Your task to perform on an android device: toggle show notifications on the lock screen Image 0: 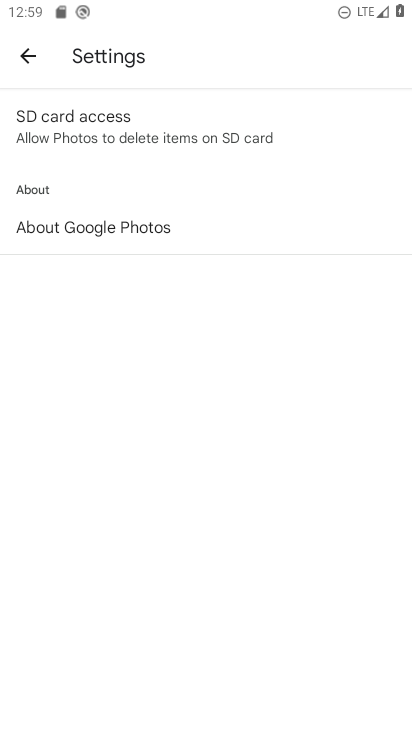
Step 0: press home button
Your task to perform on an android device: toggle show notifications on the lock screen Image 1: 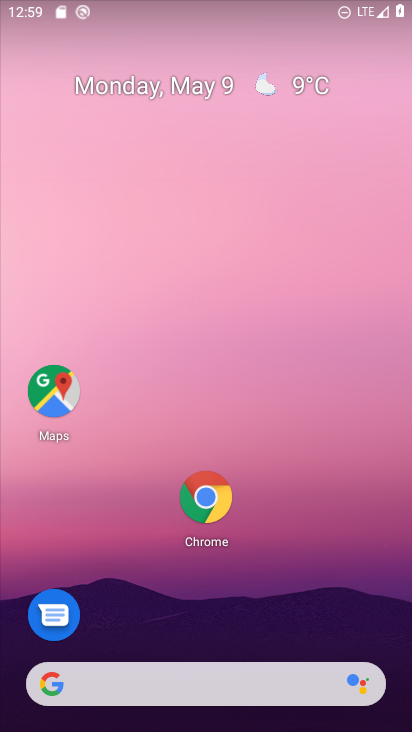
Step 1: drag from (329, 615) to (230, 87)
Your task to perform on an android device: toggle show notifications on the lock screen Image 2: 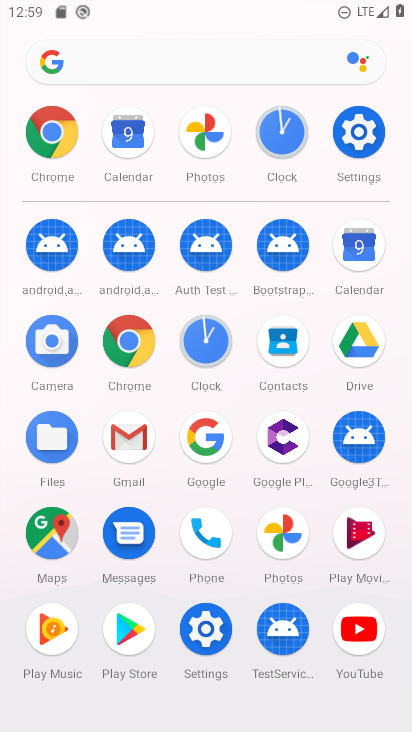
Step 2: click (352, 123)
Your task to perform on an android device: toggle show notifications on the lock screen Image 3: 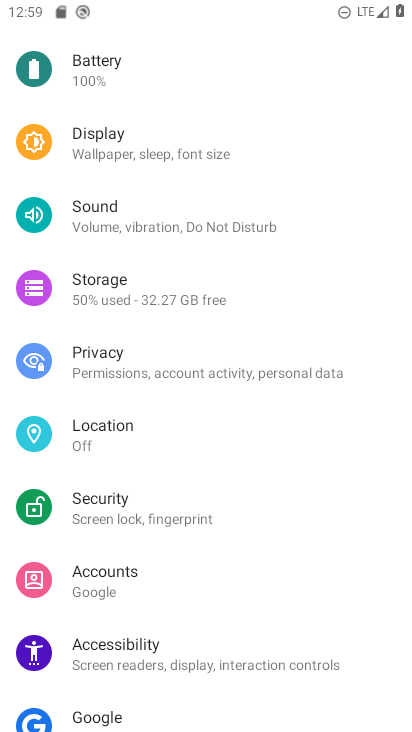
Step 3: drag from (227, 232) to (235, 561)
Your task to perform on an android device: toggle show notifications on the lock screen Image 4: 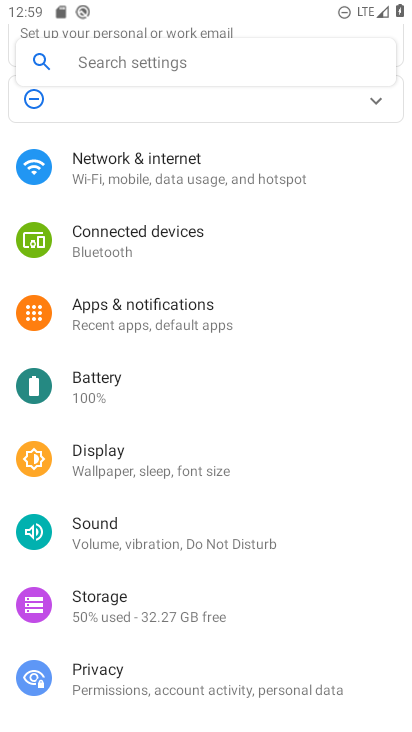
Step 4: click (153, 298)
Your task to perform on an android device: toggle show notifications on the lock screen Image 5: 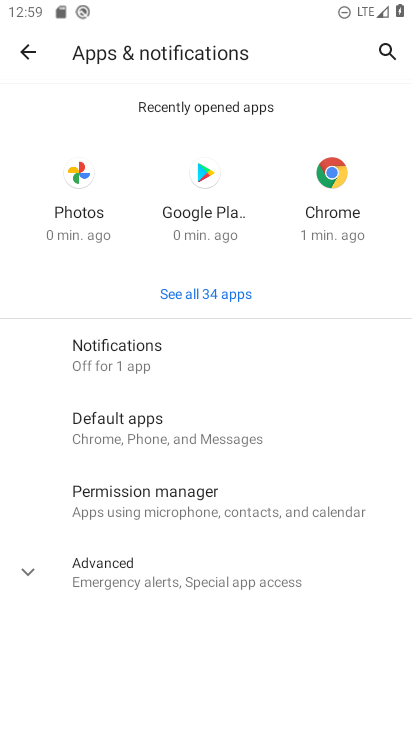
Step 5: click (155, 356)
Your task to perform on an android device: toggle show notifications on the lock screen Image 6: 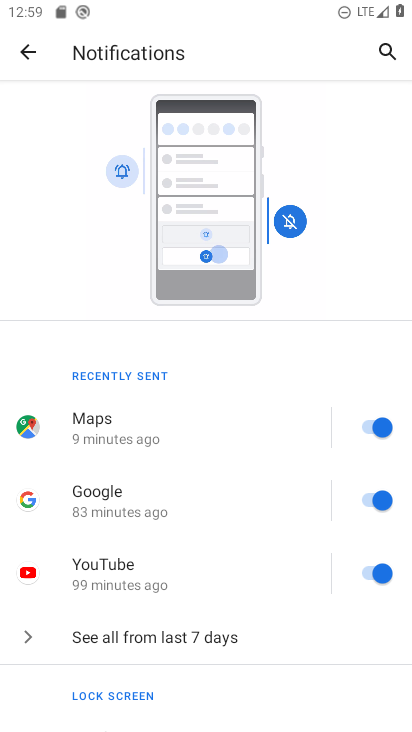
Step 6: drag from (163, 580) to (230, 165)
Your task to perform on an android device: toggle show notifications on the lock screen Image 7: 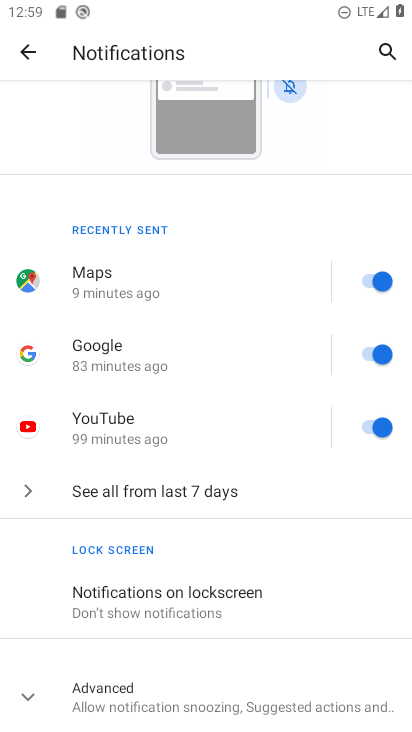
Step 7: click (195, 602)
Your task to perform on an android device: toggle show notifications on the lock screen Image 8: 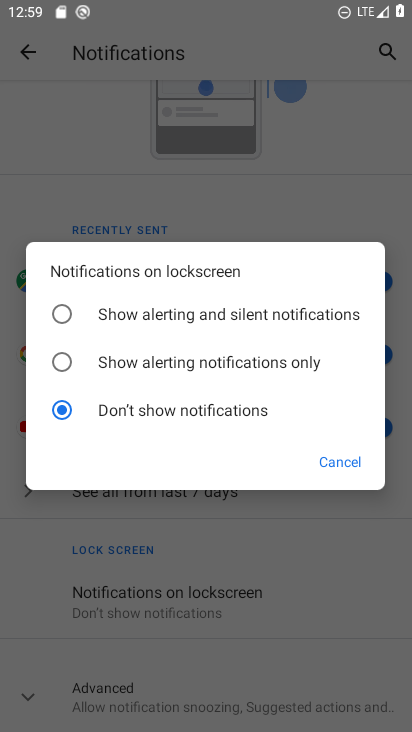
Step 8: click (271, 380)
Your task to perform on an android device: toggle show notifications on the lock screen Image 9: 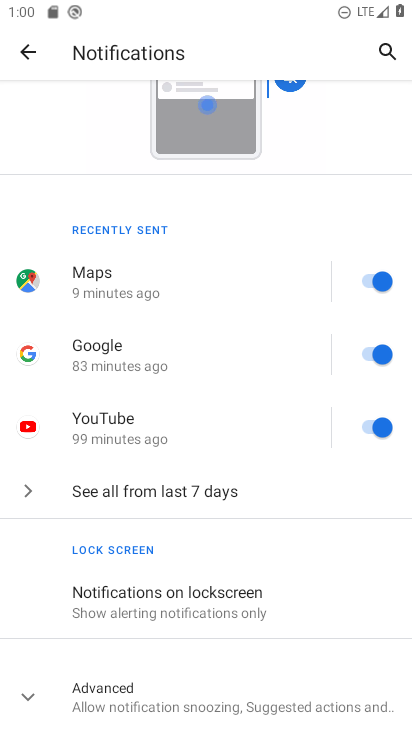
Step 9: task complete